Your task to perform on an android device: change your default location settings in chrome Image 0: 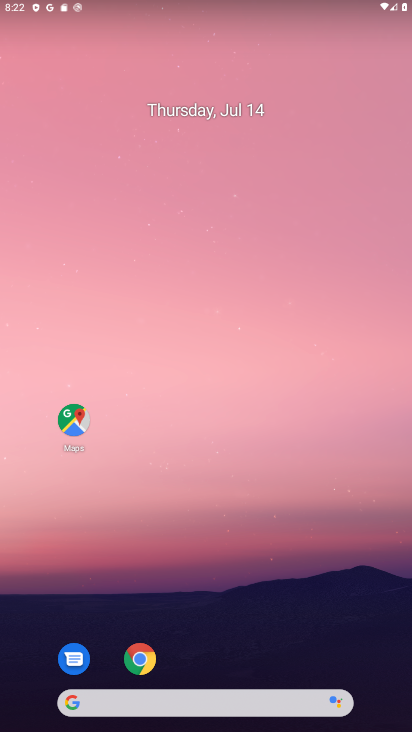
Step 0: click (135, 672)
Your task to perform on an android device: change your default location settings in chrome Image 1: 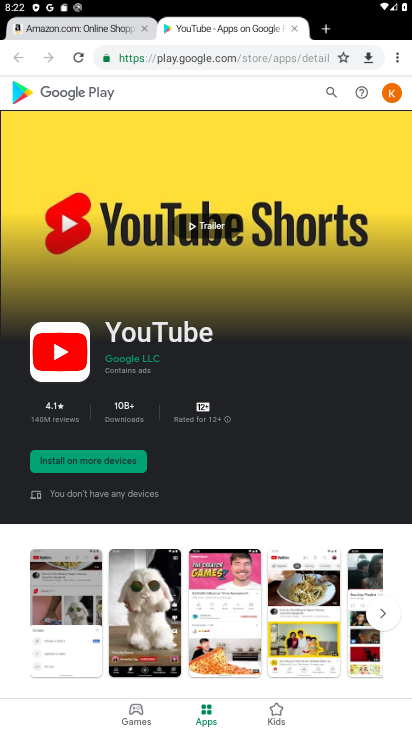
Step 1: click (399, 62)
Your task to perform on an android device: change your default location settings in chrome Image 2: 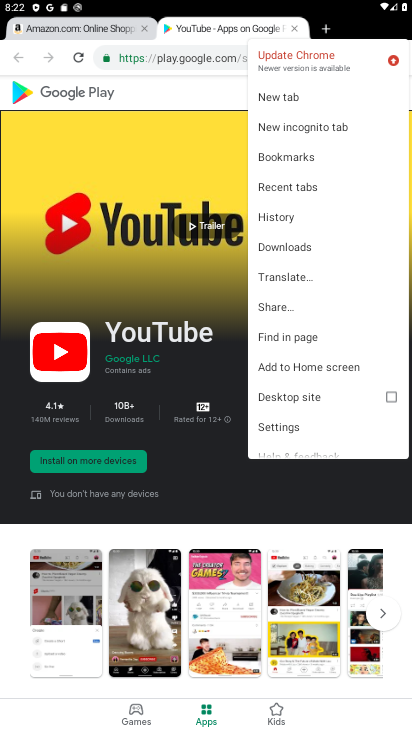
Step 2: click (280, 429)
Your task to perform on an android device: change your default location settings in chrome Image 3: 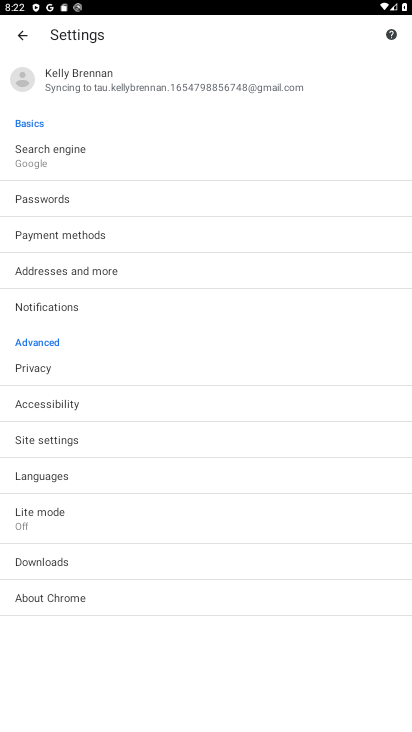
Step 3: click (53, 444)
Your task to perform on an android device: change your default location settings in chrome Image 4: 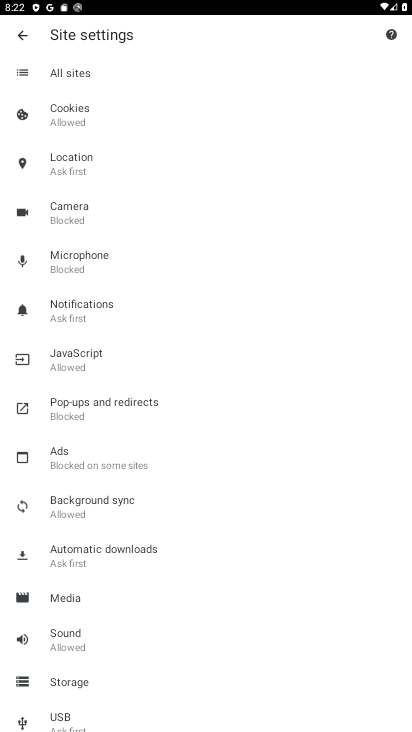
Step 4: click (66, 170)
Your task to perform on an android device: change your default location settings in chrome Image 5: 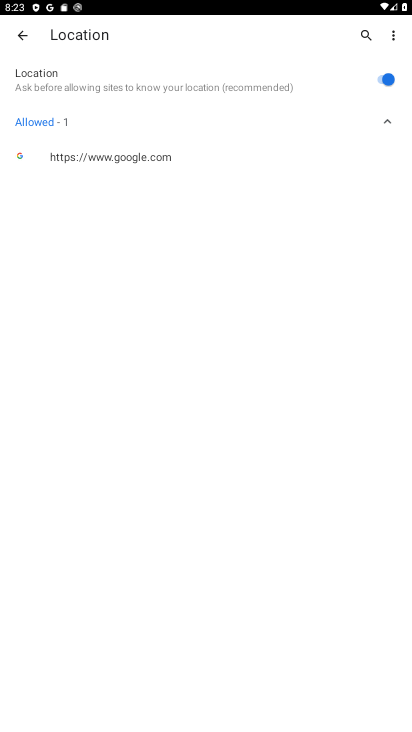
Step 5: click (377, 79)
Your task to perform on an android device: change your default location settings in chrome Image 6: 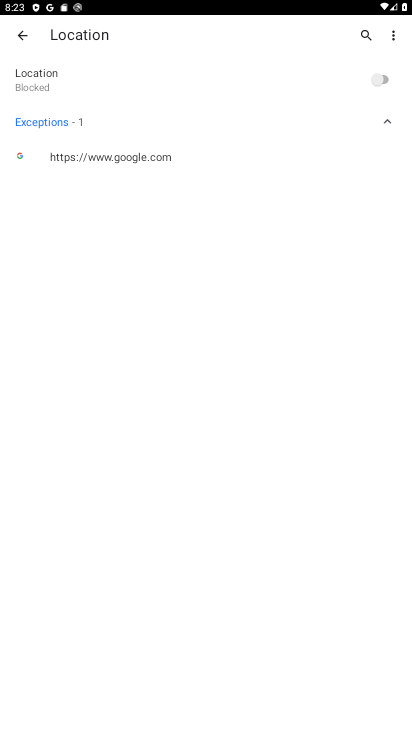
Step 6: task complete